Your task to perform on an android device: Search for Italian restaurants on Maps Image 0: 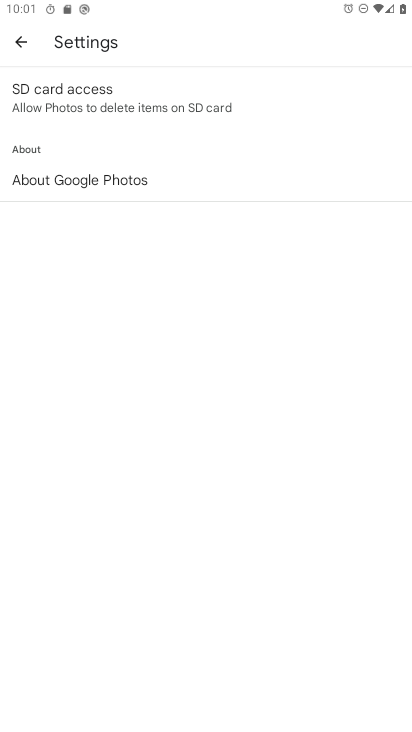
Step 0: press home button
Your task to perform on an android device: Search for Italian restaurants on Maps Image 1: 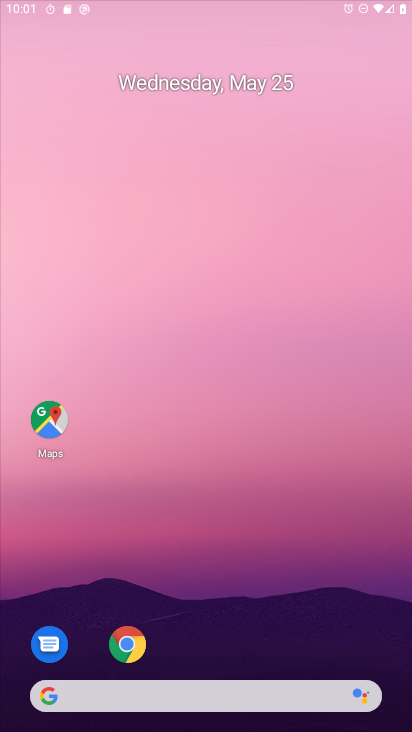
Step 1: drag from (343, 622) to (322, 69)
Your task to perform on an android device: Search for Italian restaurants on Maps Image 2: 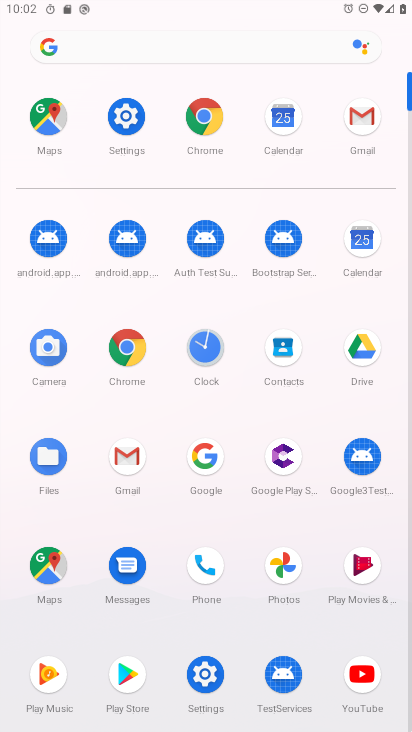
Step 2: click (45, 566)
Your task to perform on an android device: Search for Italian restaurants on Maps Image 3: 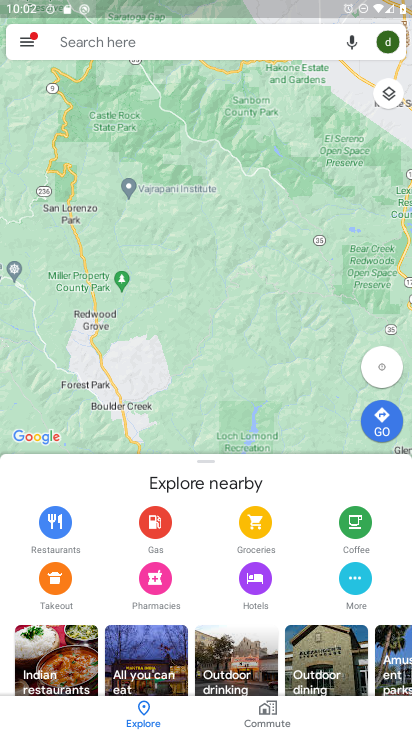
Step 3: click (134, 42)
Your task to perform on an android device: Search for Italian restaurants on Maps Image 4: 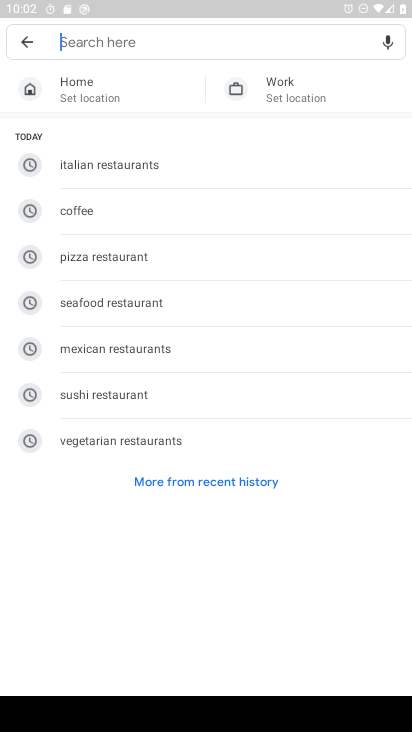
Step 4: click (118, 166)
Your task to perform on an android device: Search for Italian restaurants on Maps Image 5: 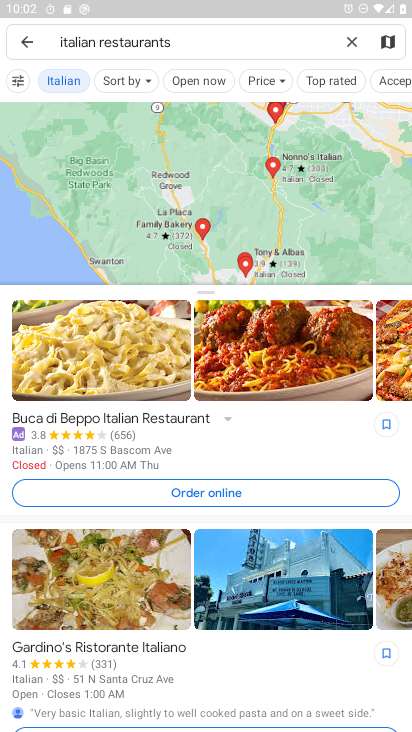
Step 5: task complete